Your task to perform on an android device: turn off notifications in google photos Image 0: 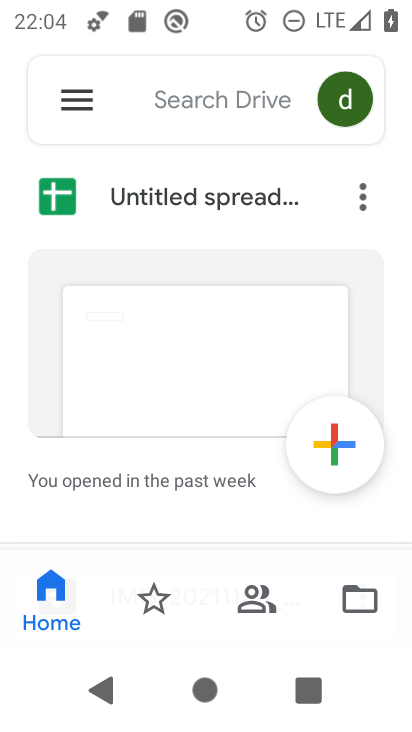
Step 0: press home button
Your task to perform on an android device: turn off notifications in google photos Image 1: 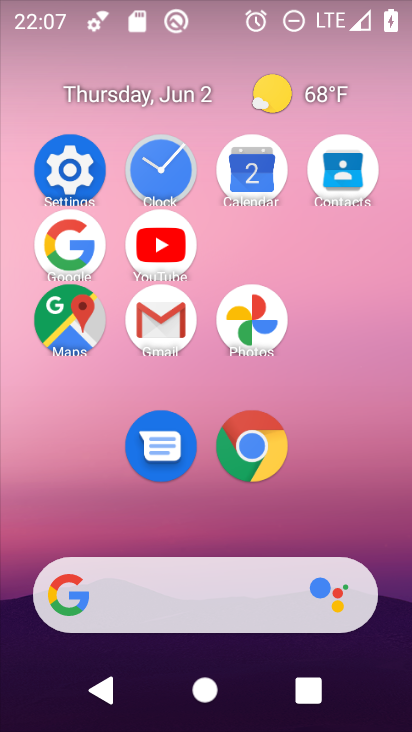
Step 1: click (267, 314)
Your task to perform on an android device: turn off notifications in google photos Image 2: 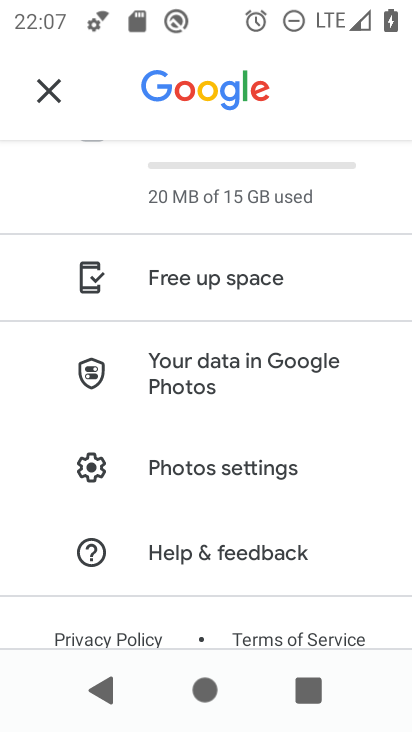
Step 2: click (295, 470)
Your task to perform on an android device: turn off notifications in google photos Image 3: 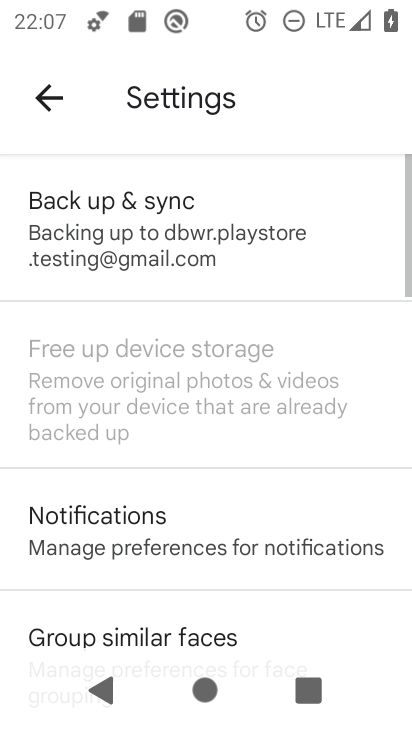
Step 3: drag from (285, 369) to (287, 132)
Your task to perform on an android device: turn off notifications in google photos Image 4: 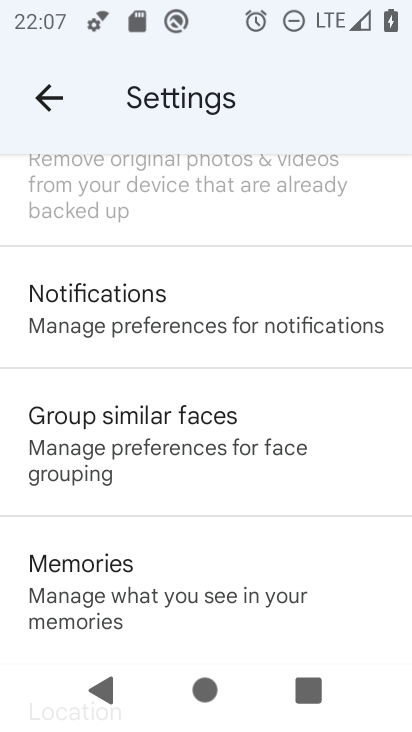
Step 4: click (226, 314)
Your task to perform on an android device: turn off notifications in google photos Image 5: 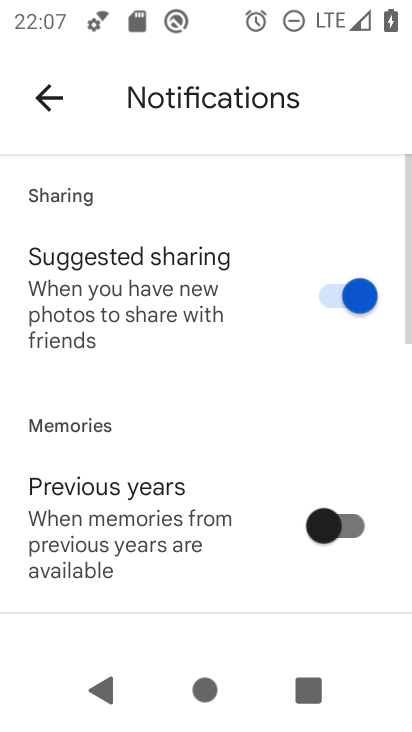
Step 5: task complete